Your task to perform on an android device: check battery use Image 0: 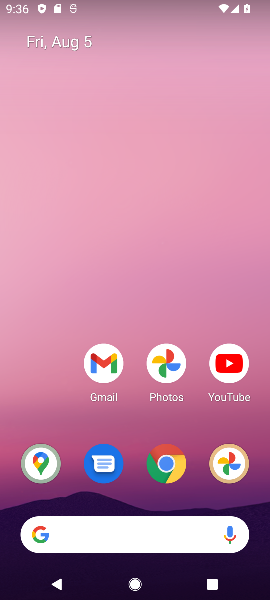
Step 0: drag from (144, 540) to (143, 5)
Your task to perform on an android device: check battery use Image 1: 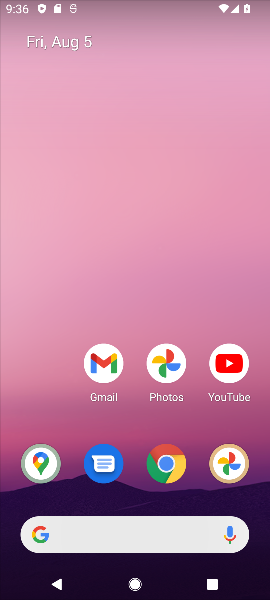
Step 1: click (113, 9)
Your task to perform on an android device: check battery use Image 2: 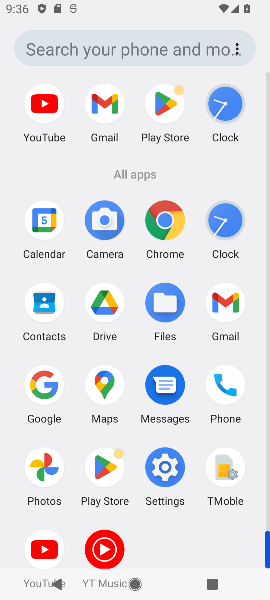
Step 2: drag from (169, 346) to (158, 57)
Your task to perform on an android device: check battery use Image 3: 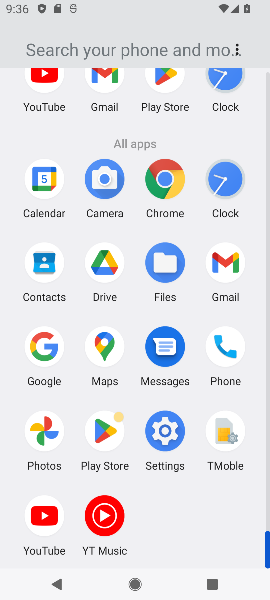
Step 3: drag from (185, 420) to (153, 190)
Your task to perform on an android device: check battery use Image 4: 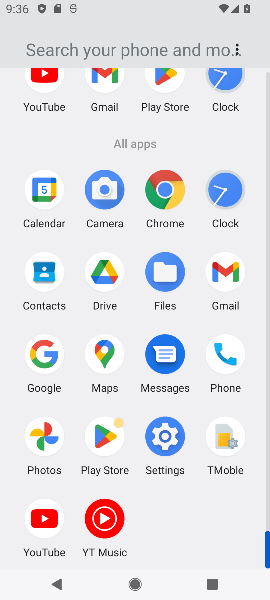
Step 4: click (166, 437)
Your task to perform on an android device: check battery use Image 5: 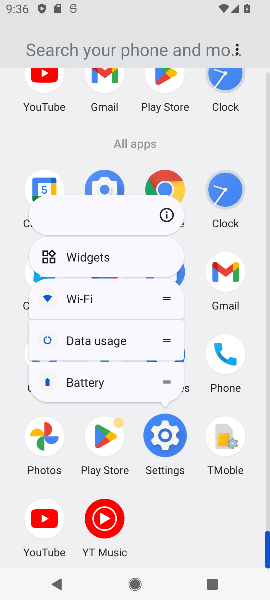
Step 5: click (166, 435)
Your task to perform on an android device: check battery use Image 6: 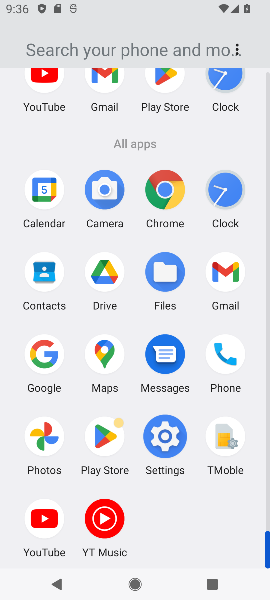
Step 6: click (168, 434)
Your task to perform on an android device: check battery use Image 7: 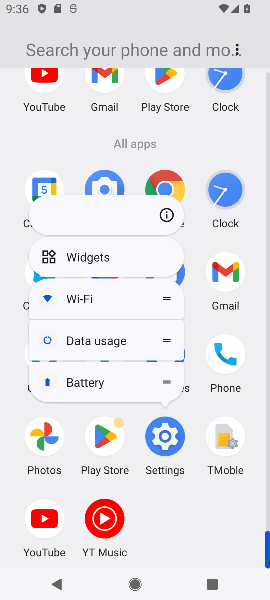
Step 7: click (171, 431)
Your task to perform on an android device: check battery use Image 8: 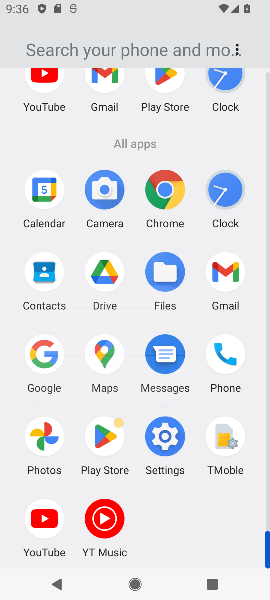
Step 8: click (171, 431)
Your task to perform on an android device: check battery use Image 9: 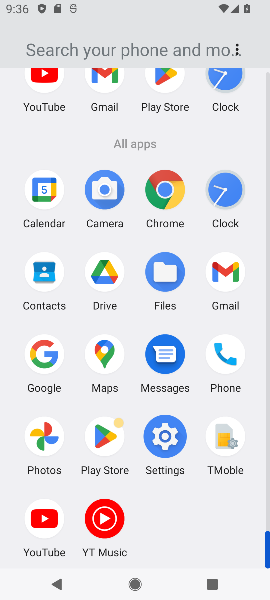
Step 9: click (171, 431)
Your task to perform on an android device: check battery use Image 10: 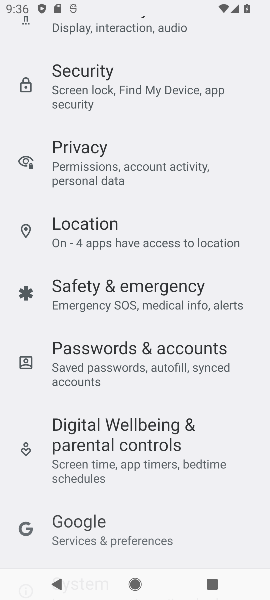
Step 10: click (171, 431)
Your task to perform on an android device: check battery use Image 11: 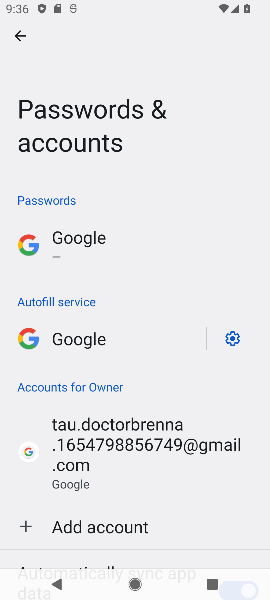
Step 11: click (18, 33)
Your task to perform on an android device: check battery use Image 12: 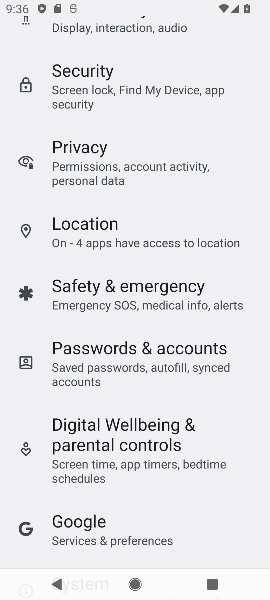
Step 12: drag from (75, 195) to (139, 375)
Your task to perform on an android device: check battery use Image 13: 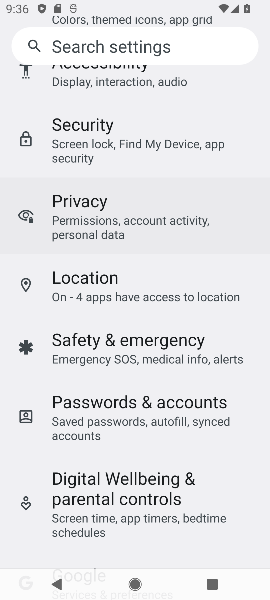
Step 13: drag from (130, 220) to (182, 444)
Your task to perform on an android device: check battery use Image 14: 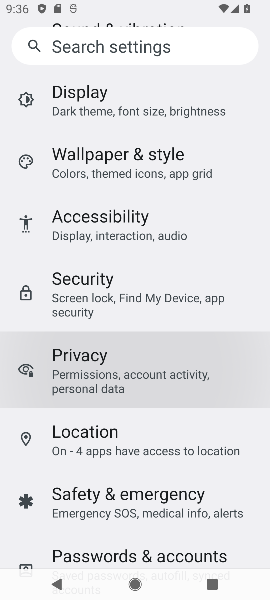
Step 14: drag from (94, 212) to (140, 437)
Your task to perform on an android device: check battery use Image 15: 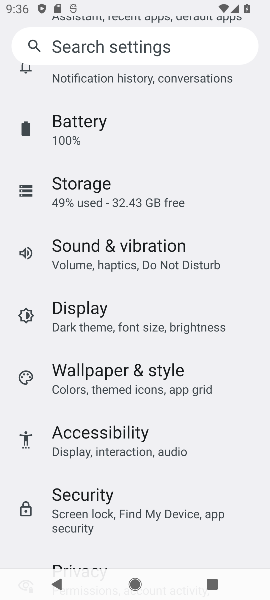
Step 15: click (67, 133)
Your task to perform on an android device: check battery use Image 16: 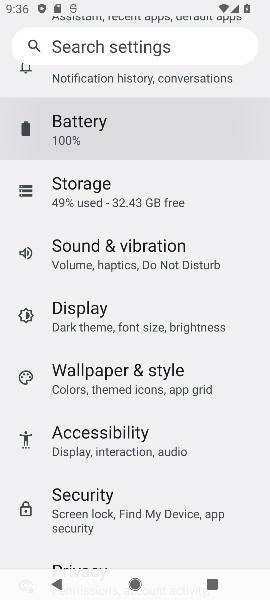
Step 16: click (67, 133)
Your task to perform on an android device: check battery use Image 17: 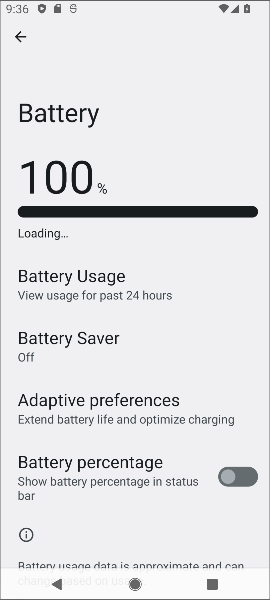
Step 17: click (67, 133)
Your task to perform on an android device: check battery use Image 18: 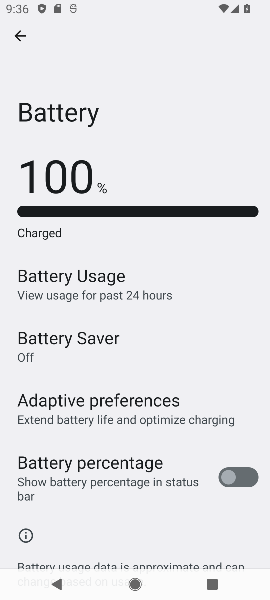
Step 18: task complete